Your task to perform on an android device: empty trash in the gmail app Image 0: 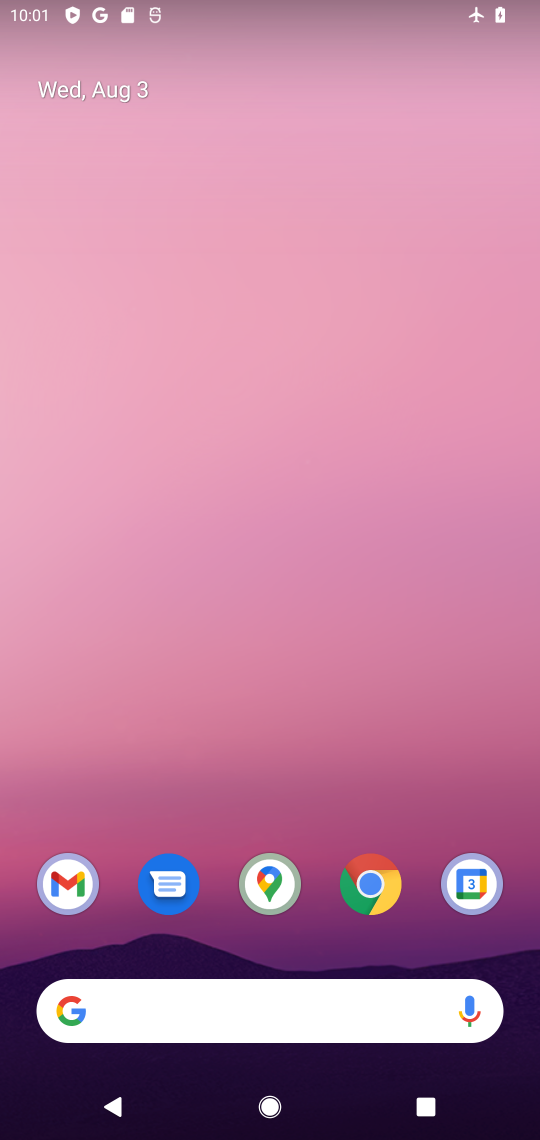
Step 0: click (78, 881)
Your task to perform on an android device: empty trash in the gmail app Image 1: 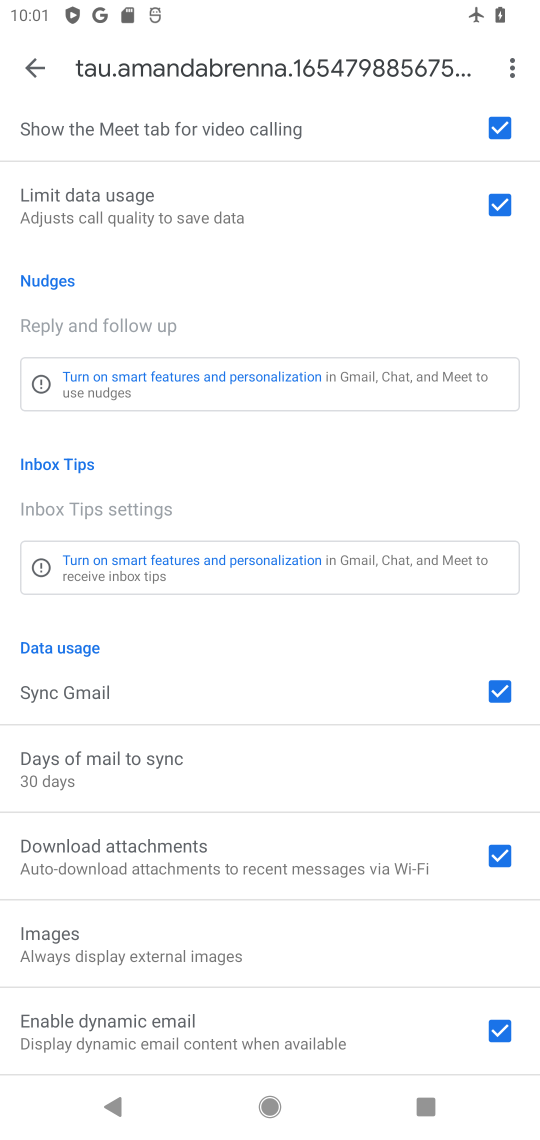
Step 1: press home button
Your task to perform on an android device: empty trash in the gmail app Image 2: 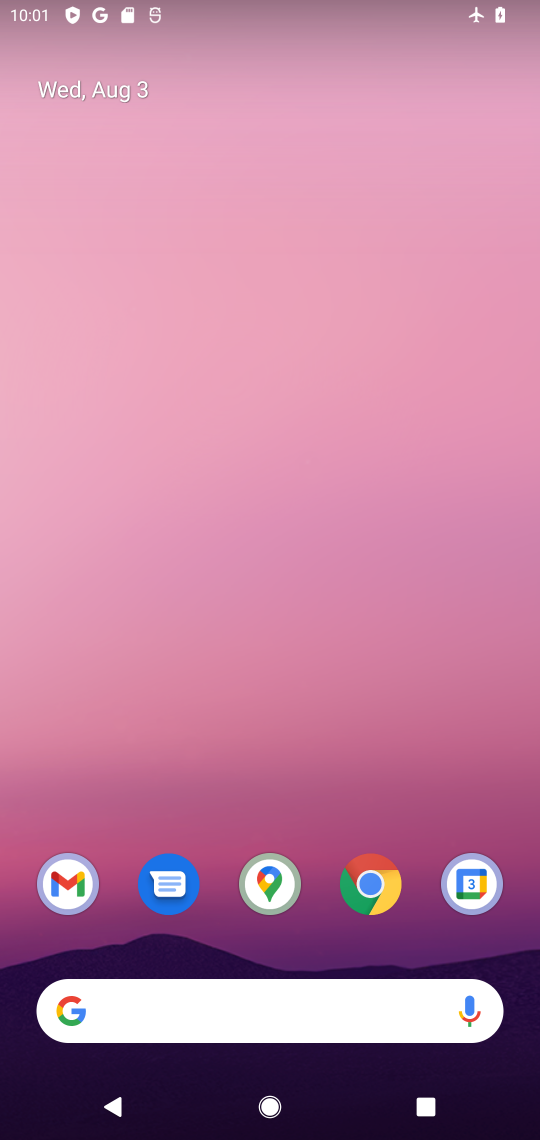
Step 2: click (69, 875)
Your task to perform on an android device: empty trash in the gmail app Image 3: 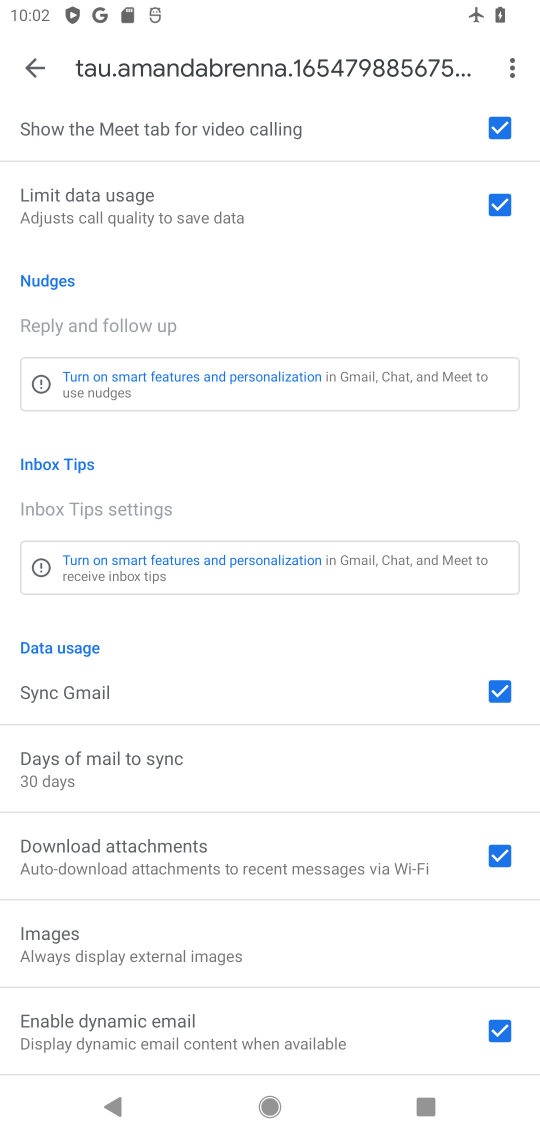
Step 3: click (39, 68)
Your task to perform on an android device: empty trash in the gmail app Image 4: 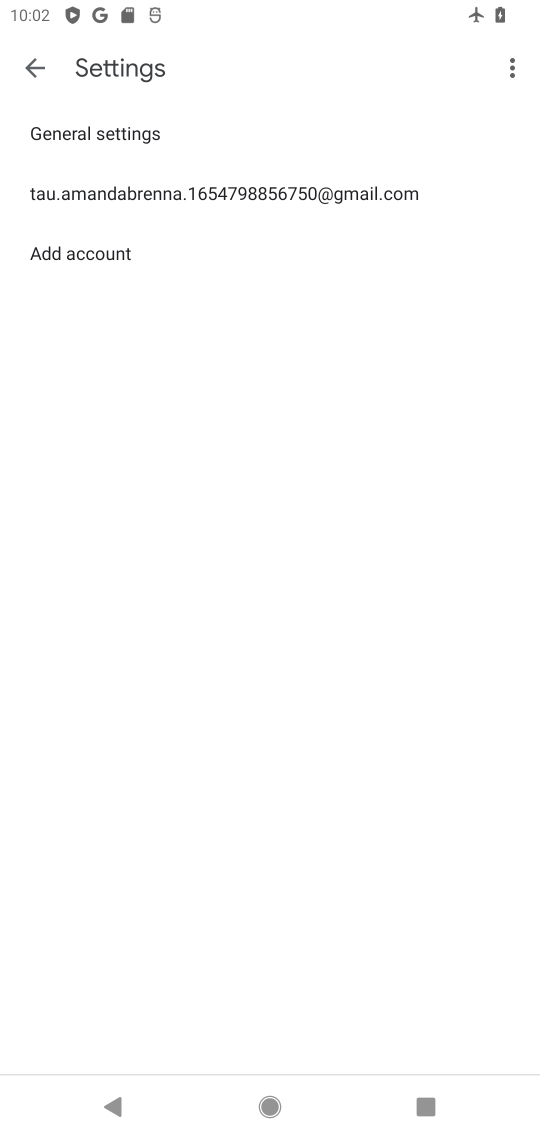
Step 4: click (52, 48)
Your task to perform on an android device: empty trash in the gmail app Image 5: 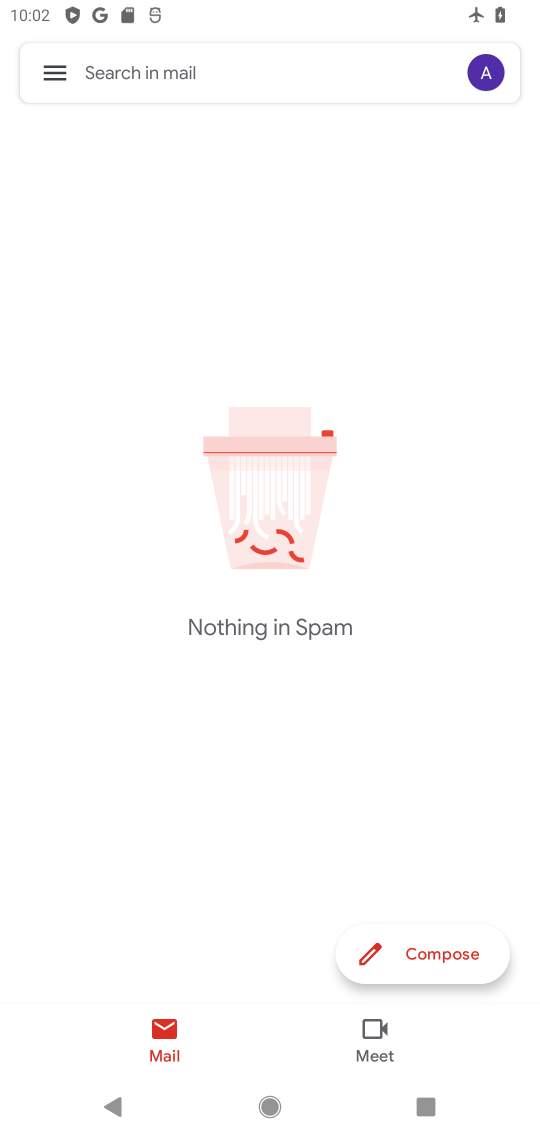
Step 5: click (39, 73)
Your task to perform on an android device: empty trash in the gmail app Image 6: 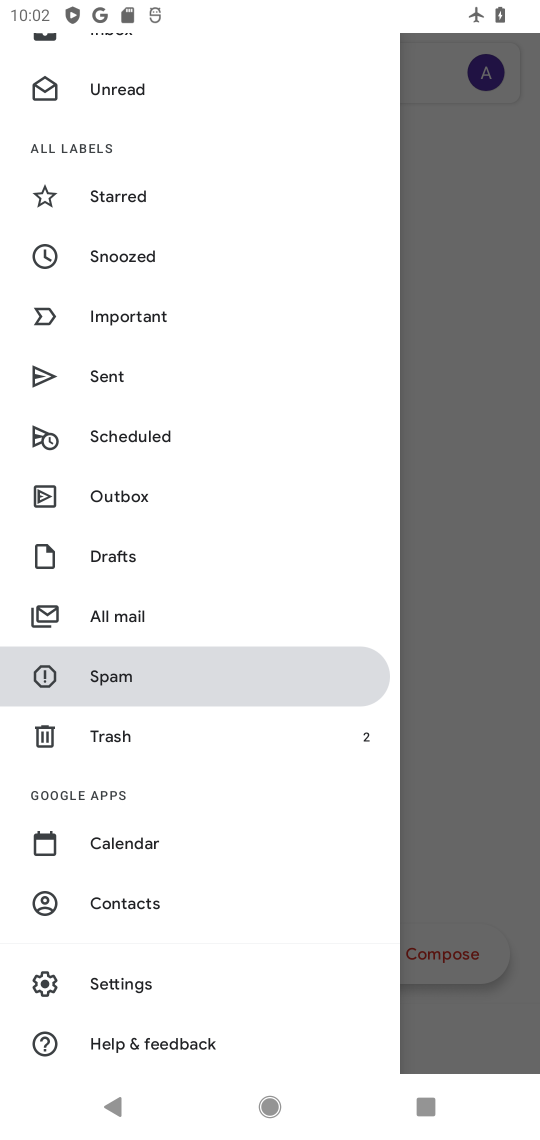
Step 6: click (104, 738)
Your task to perform on an android device: empty trash in the gmail app Image 7: 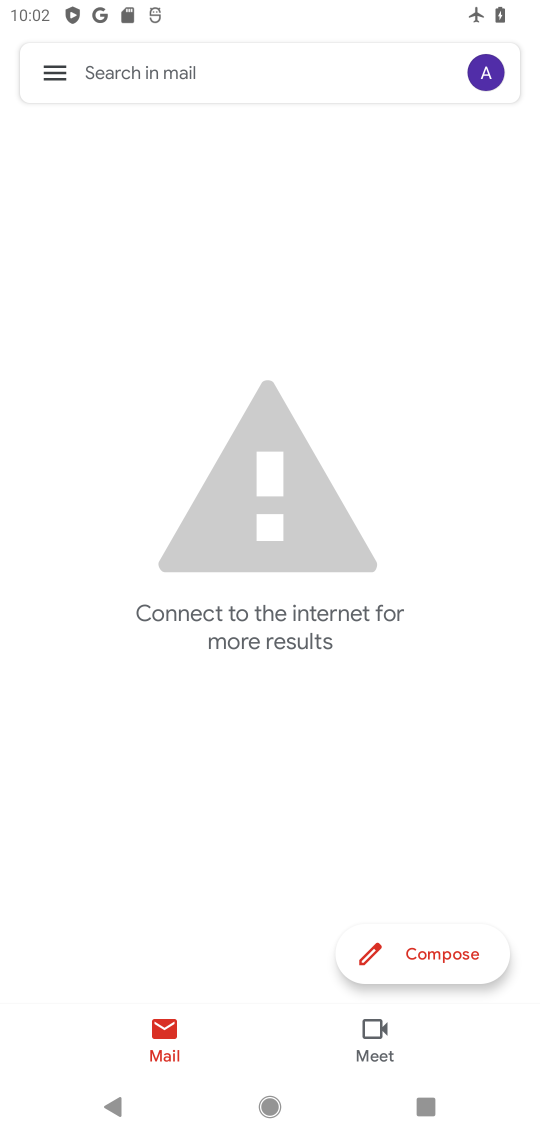
Step 7: click (43, 65)
Your task to perform on an android device: empty trash in the gmail app Image 8: 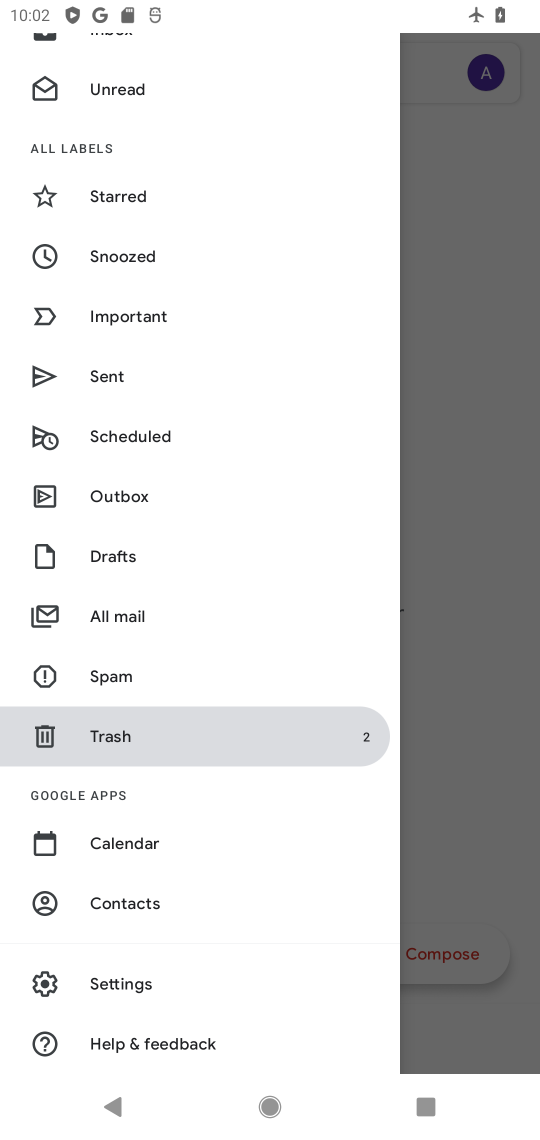
Step 8: click (169, 735)
Your task to perform on an android device: empty trash in the gmail app Image 9: 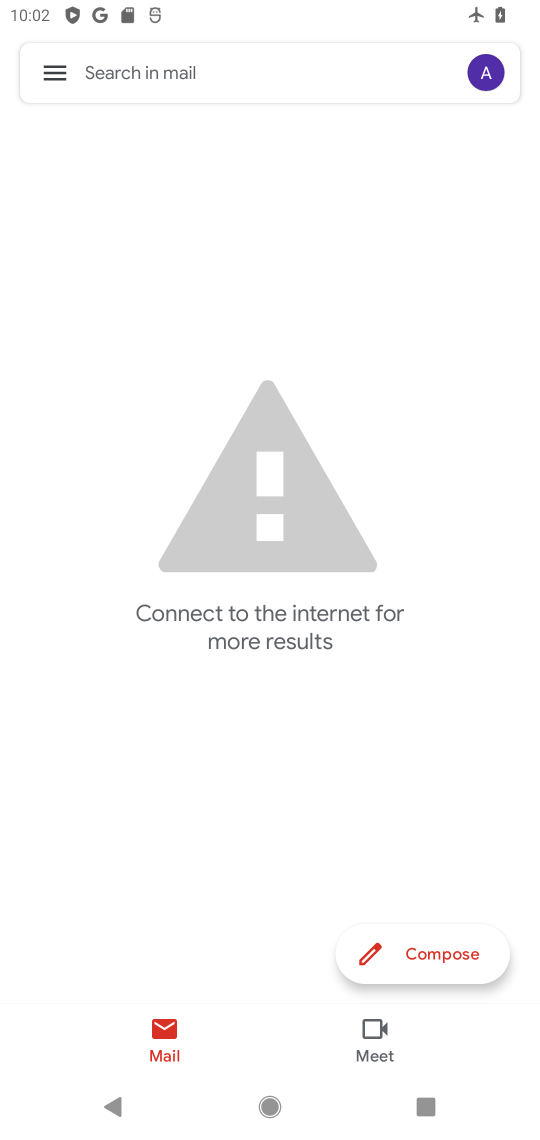
Step 9: drag from (249, 4) to (183, 699)
Your task to perform on an android device: empty trash in the gmail app Image 10: 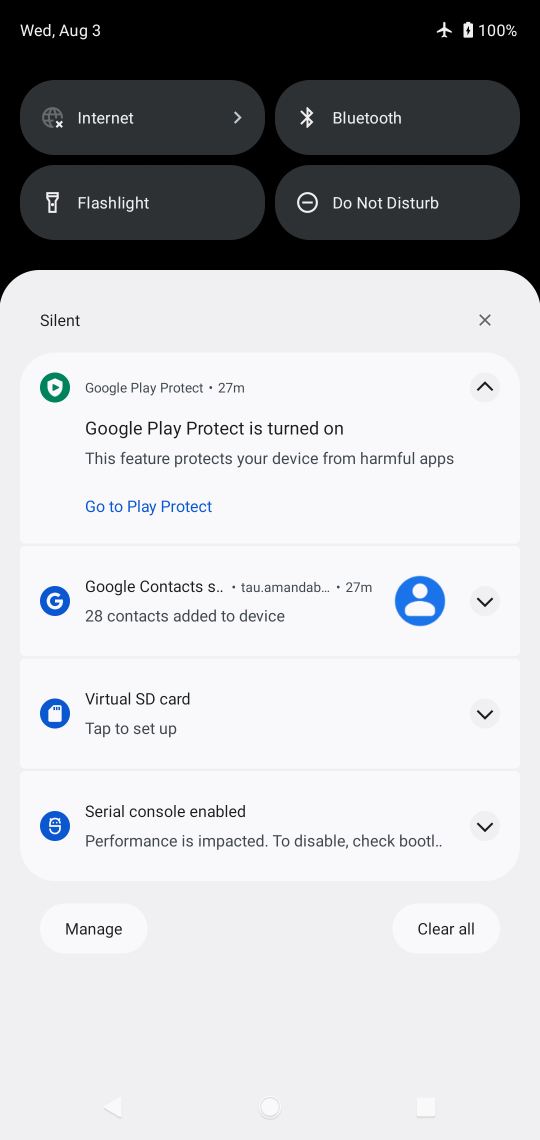
Step 10: click (139, 116)
Your task to perform on an android device: empty trash in the gmail app Image 11: 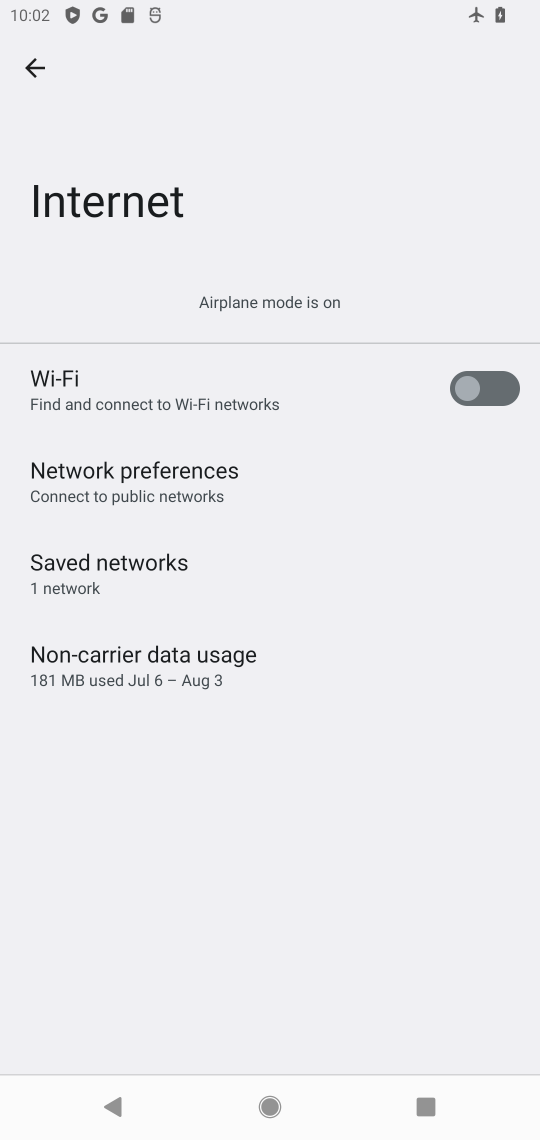
Step 11: click (480, 388)
Your task to perform on an android device: empty trash in the gmail app Image 12: 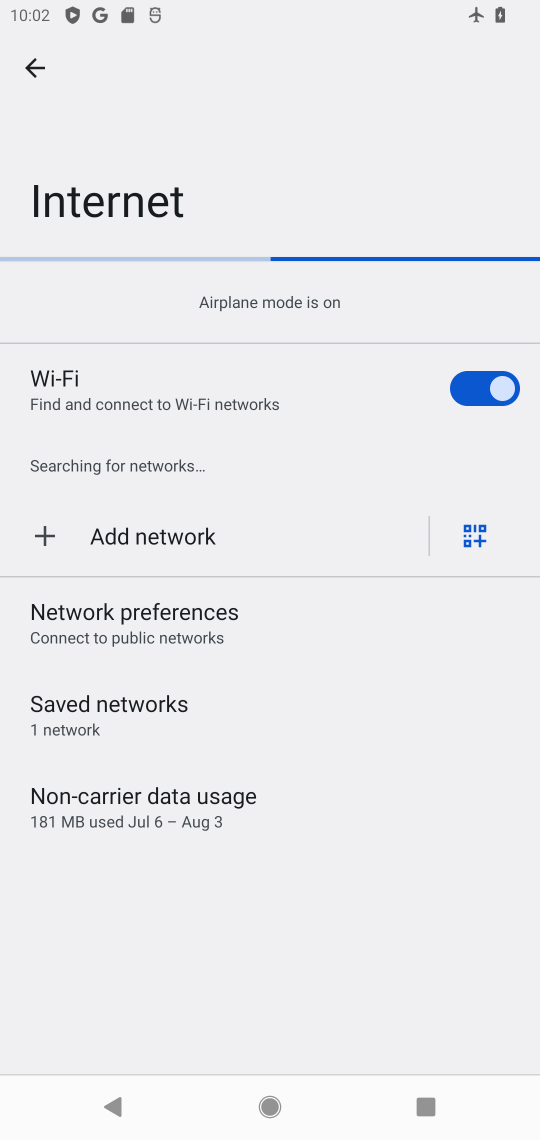
Step 12: click (37, 66)
Your task to perform on an android device: empty trash in the gmail app Image 13: 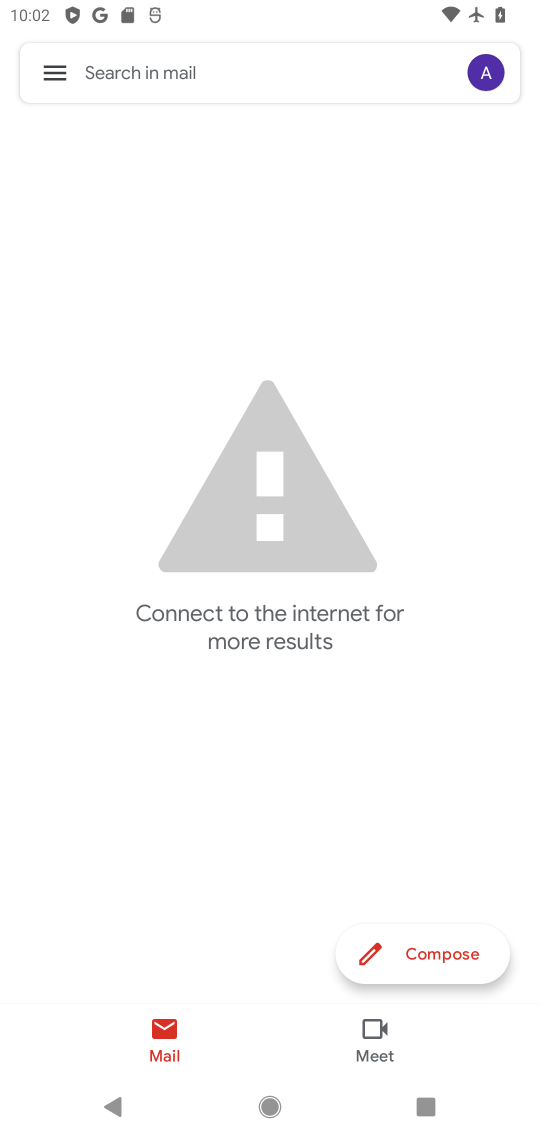
Step 13: click (48, 64)
Your task to perform on an android device: empty trash in the gmail app Image 14: 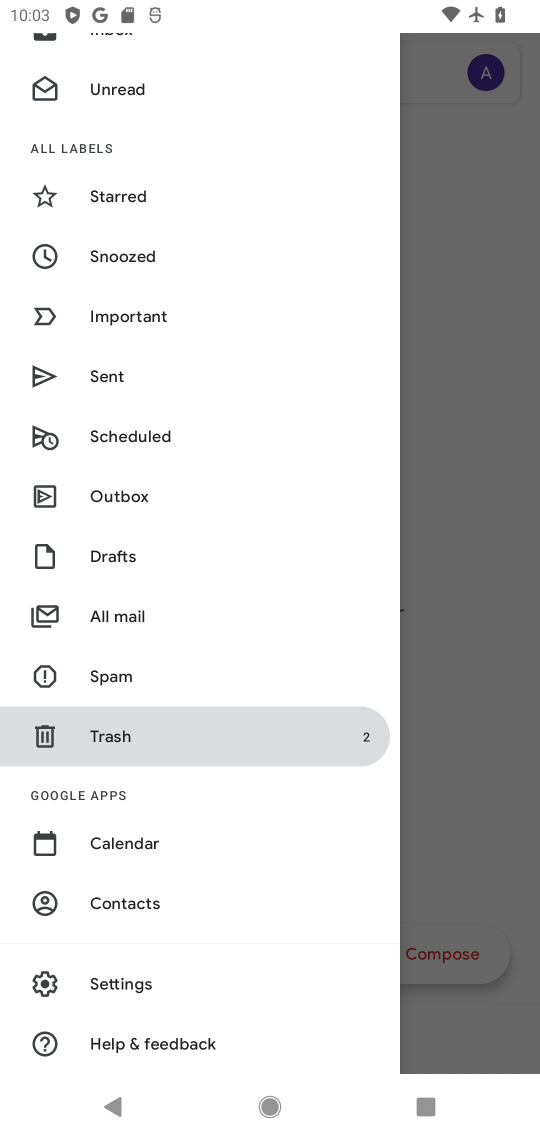
Step 14: click (103, 728)
Your task to perform on an android device: empty trash in the gmail app Image 15: 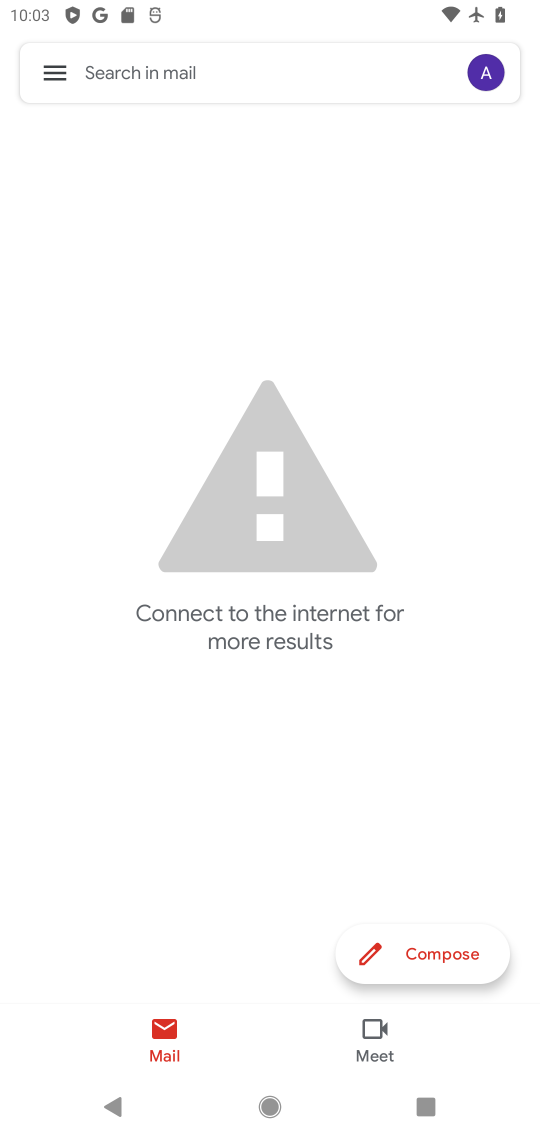
Step 15: task complete